Your task to perform on an android device: change notifications settings Image 0: 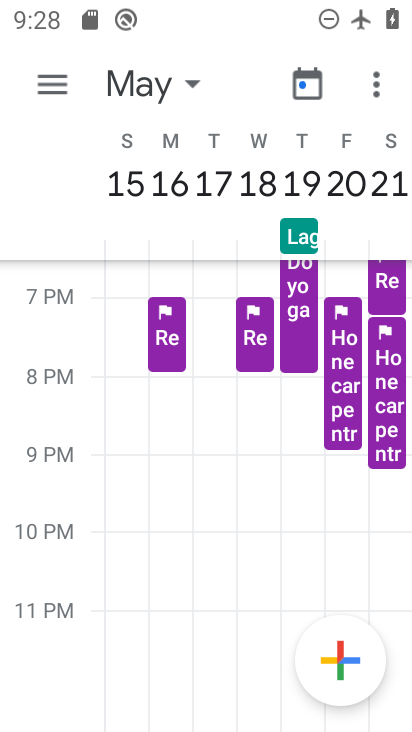
Step 0: press home button
Your task to perform on an android device: change notifications settings Image 1: 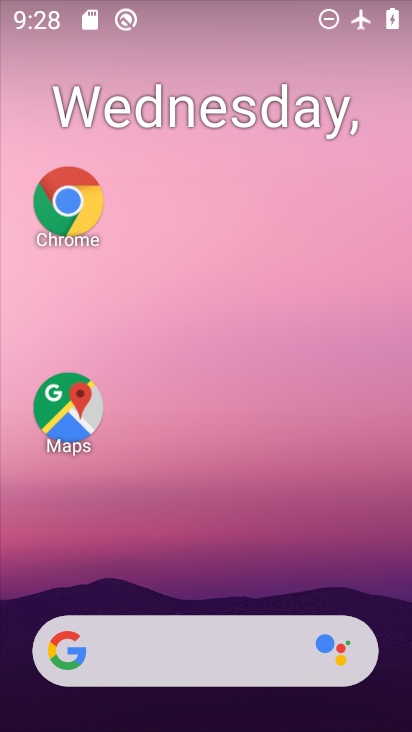
Step 1: drag from (176, 610) to (173, 84)
Your task to perform on an android device: change notifications settings Image 2: 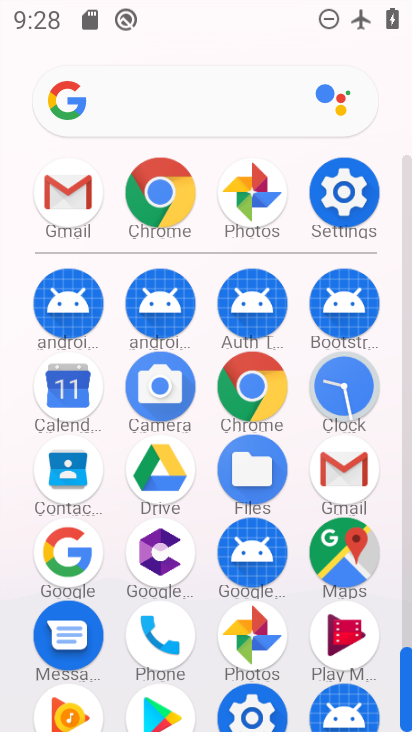
Step 2: click (358, 185)
Your task to perform on an android device: change notifications settings Image 3: 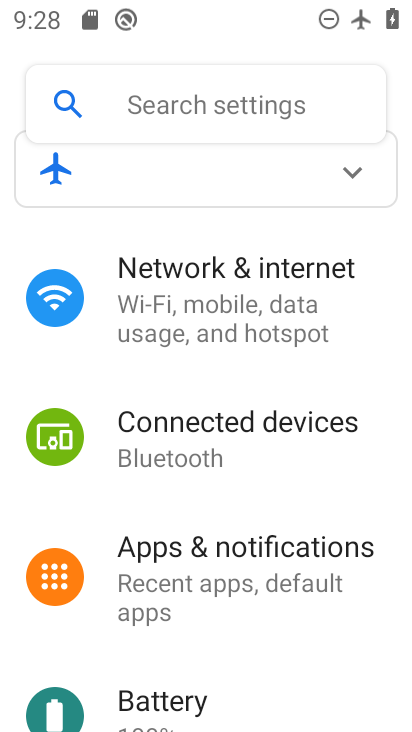
Step 3: click (121, 571)
Your task to perform on an android device: change notifications settings Image 4: 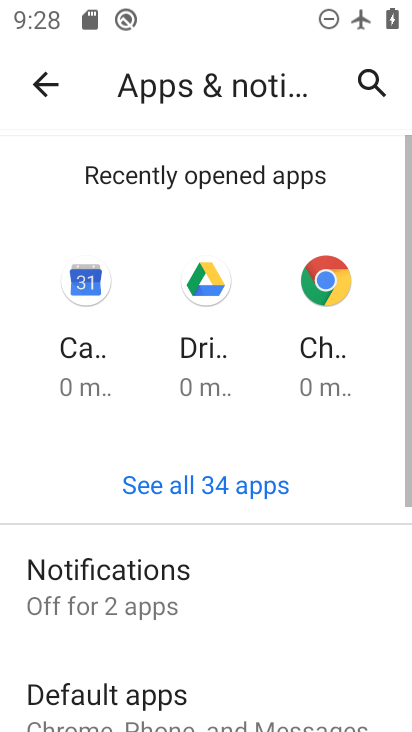
Step 4: click (141, 568)
Your task to perform on an android device: change notifications settings Image 5: 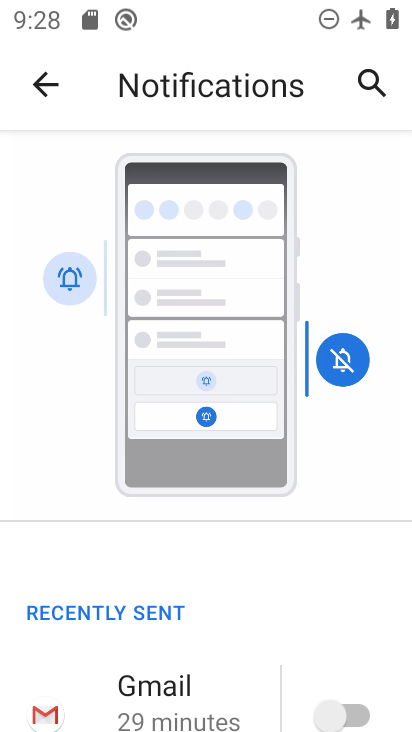
Step 5: drag from (141, 568) to (143, 163)
Your task to perform on an android device: change notifications settings Image 6: 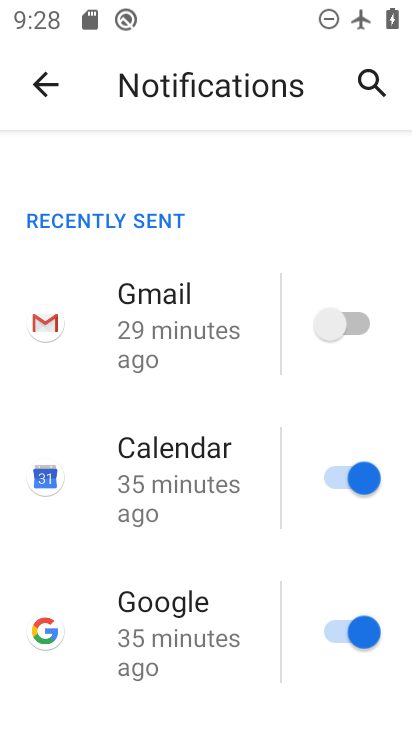
Step 6: drag from (176, 632) to (167, 97)
Your task to perform on an android device: change notifications settings Image 7: 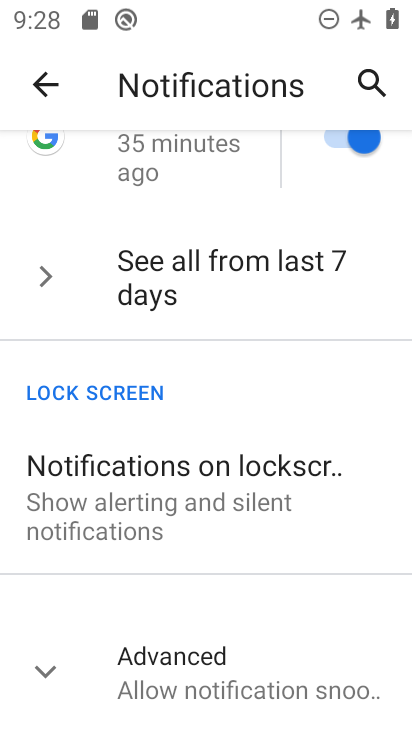
Step 7: click (192, 627)
Your task to perform on an android device: change notifications settings Image 8: 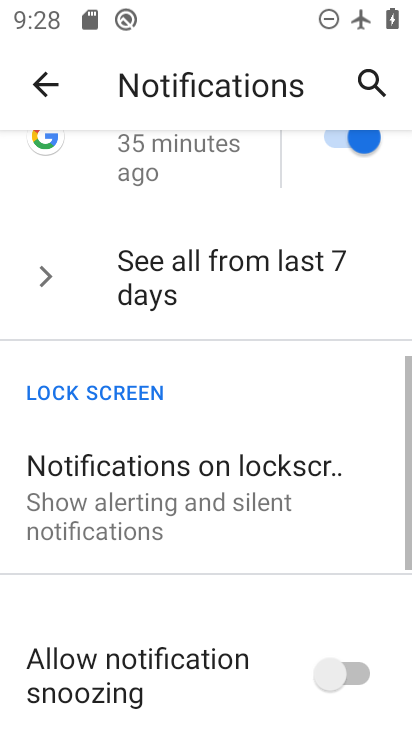
Step 8: click (247, 296)
Your task to perform on an android device: change notifications settings Image 9: 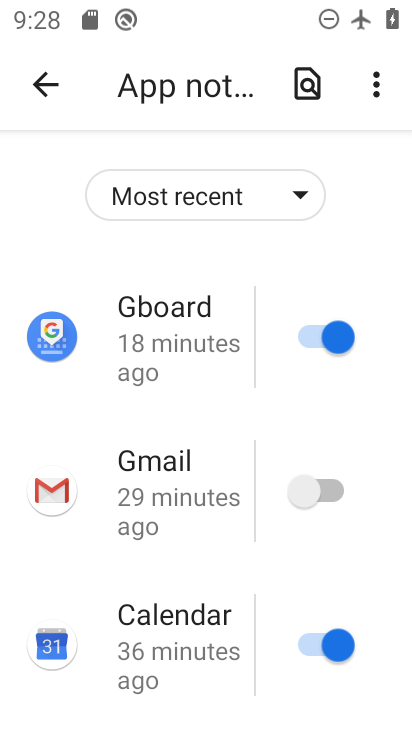
Step 9: click (247, 181)
Your task to perform on an android device: change notifications settings Image 10: 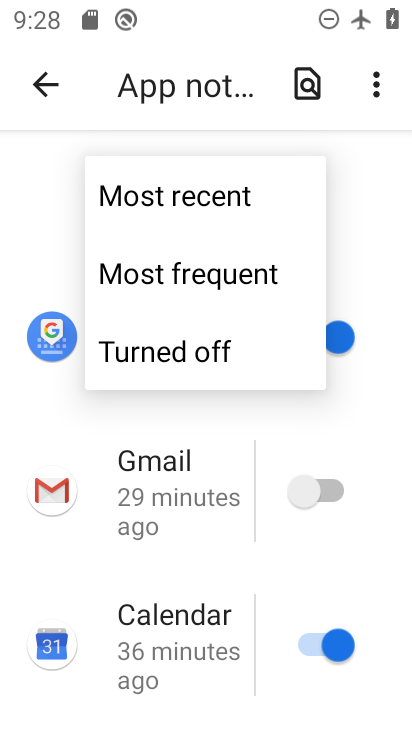
Step 10: click (194, 346)
Your task to perform on an android device: change notifications settings Image 11: 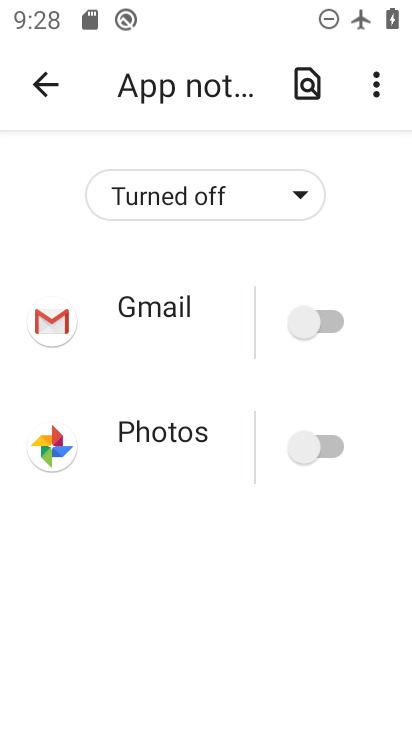
Step 11: task complete